Your task to perform on an android device: change keyboard looks Image 0: 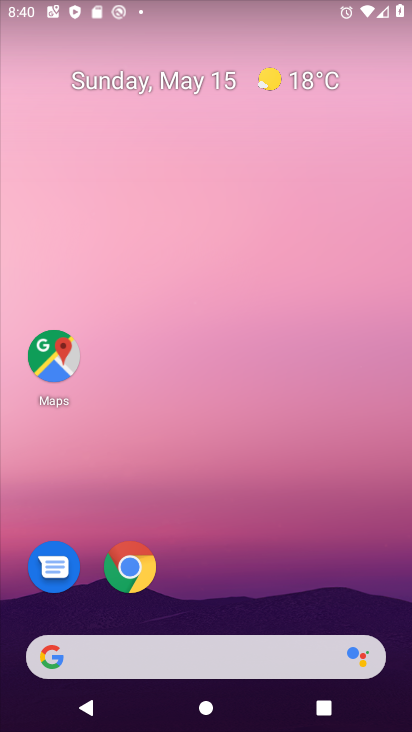
Step 0: drag from (252, 611) to (332, 25)
Your task to perform on an android device: change keyboard looks Image 1: 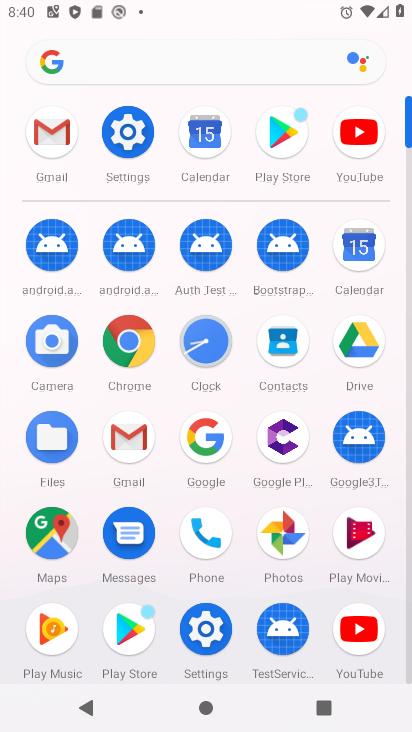
Step 1: click (123, 142)
Your task to perform on an android device: change keyboard looks Image 2: 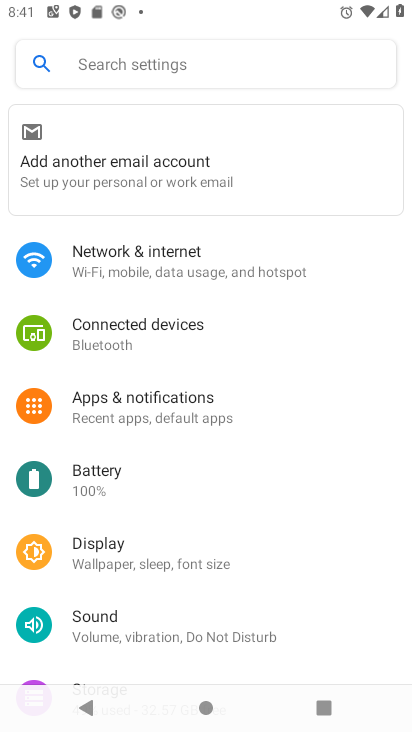
Step 2: drag from (293, 657) to (316, 51)
Your task to perform on an android device: change keyboard looks Image 3: 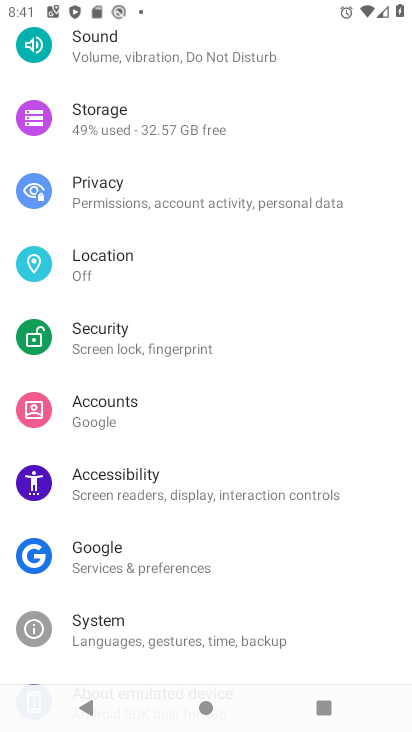
Step 3: drag from (267, 647) to (358, 9)
Your task to perform on an android device: change keyboard looks Image 4: 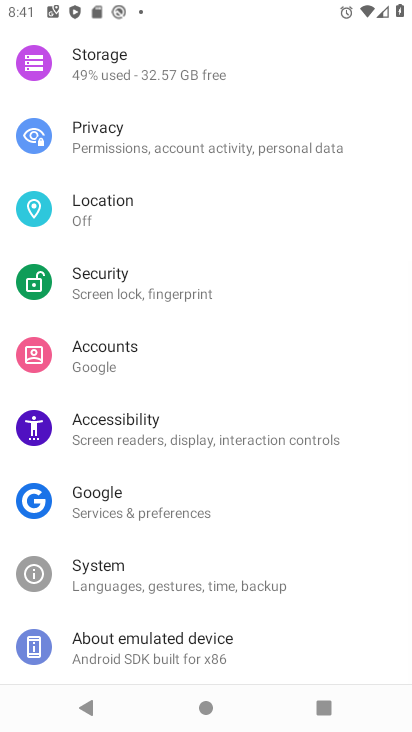
Step 4: click (115, 583)
Your task to perform on an android device: change keyboard looks Image 5: 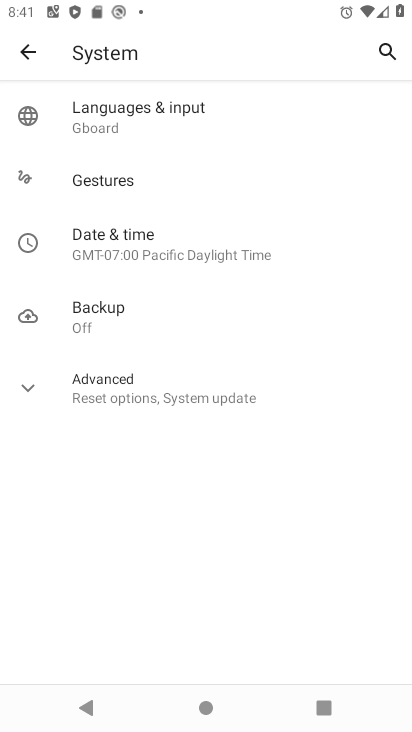
Step 5: click (58, 187)
Your task to perform on an android device: change keyboard looks Image 6: 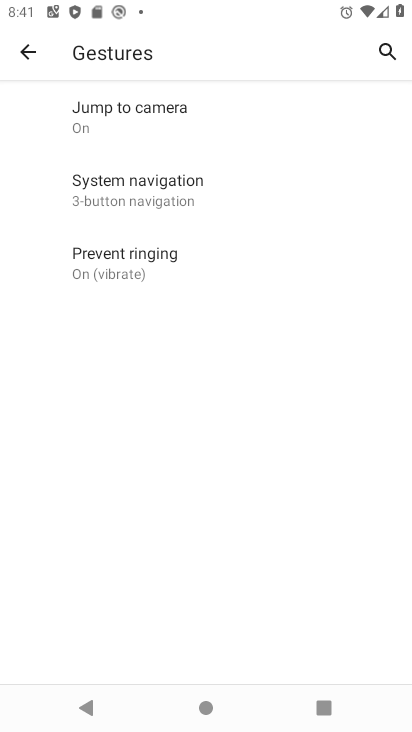
Step 6: click (36, 35)
Your task to perform on an android device: change keyboard looks Image 7: 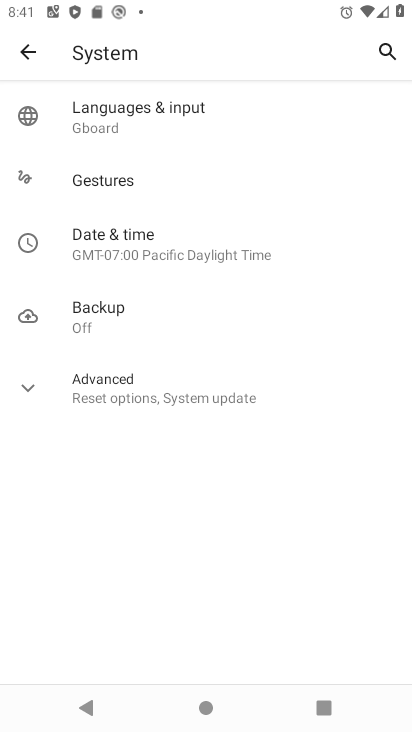
Step 7: click (142, 103)
Your task to perform on an android device: change keyboard looks Image 8: 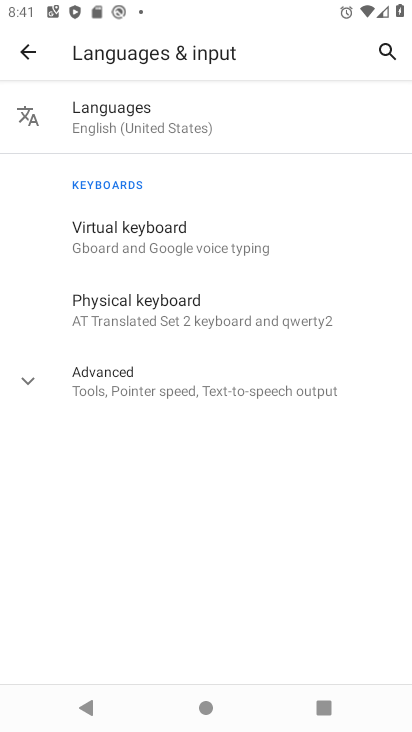
Step 8: click (157, 251)
Your task to perform on an android device: change keyboard looks Image 9: 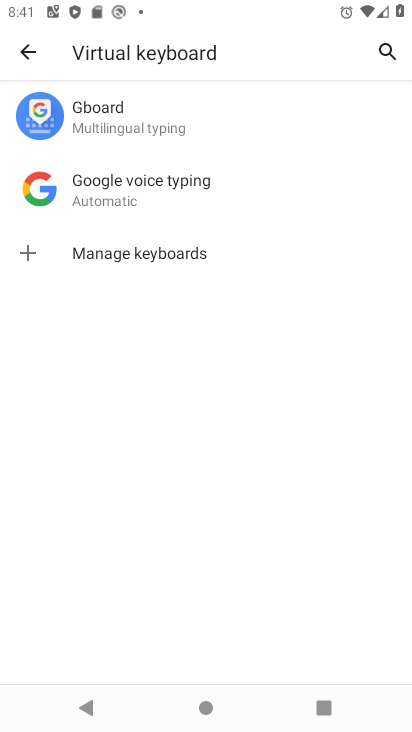
Step 9: click (163, 140)
Your task to perform on an android device: change keyboard looks Image 10: 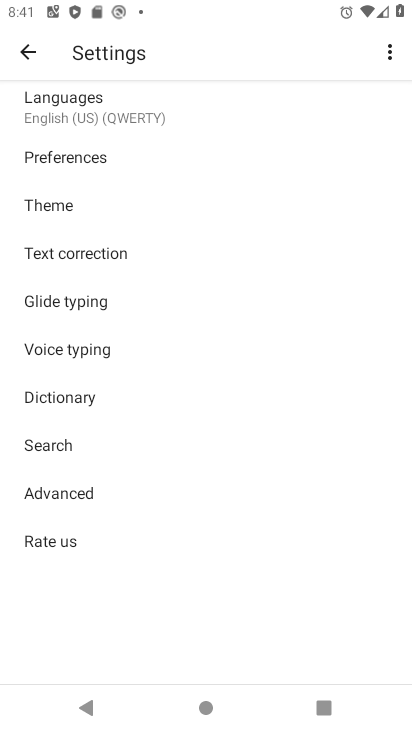
Step 10: click (39, 205)
Your task to perform on an android device: change keyboard looks Image 11: 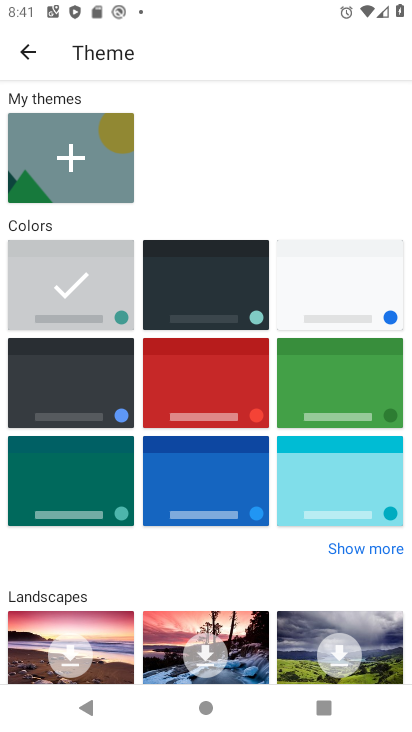
Step 11: click (287, 456)
Your task to perform on an android device: change keyboard looks Image 12: 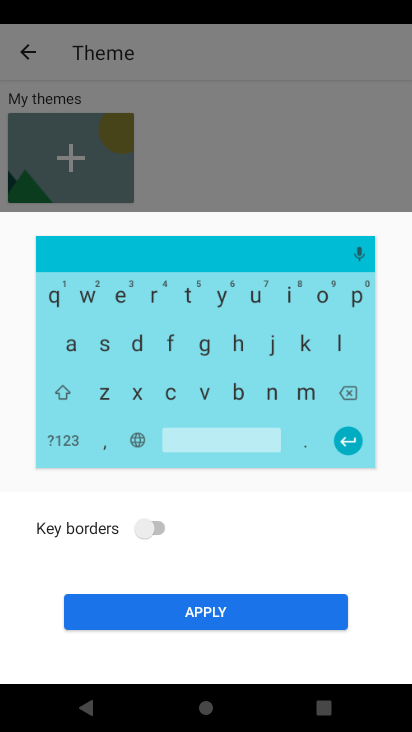
Step 12: click (155, 614)
Your task to perform on an android device: change keyboard looks Image 13: 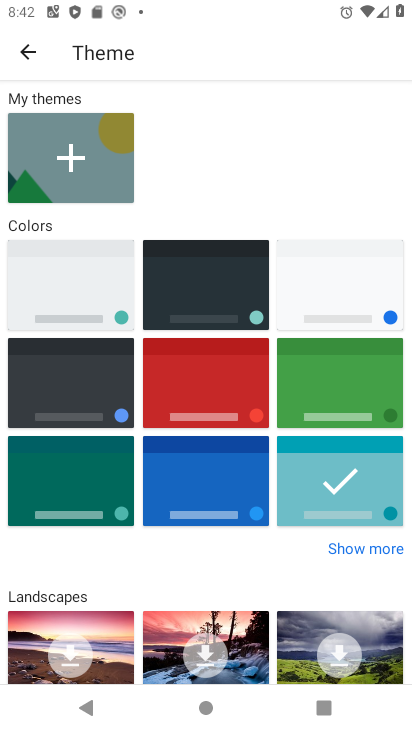
Step 13: task complete